Your task to perform on an android device: turn off data saver in the chrome app Image 0: 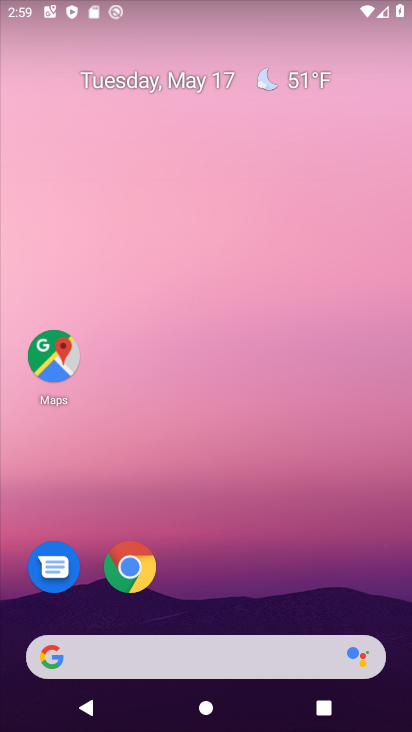
Step 0: drag from (168, 627) to (195, 195)
Your task to perform on an android device: turn off data saver in the chrome app Image 1: 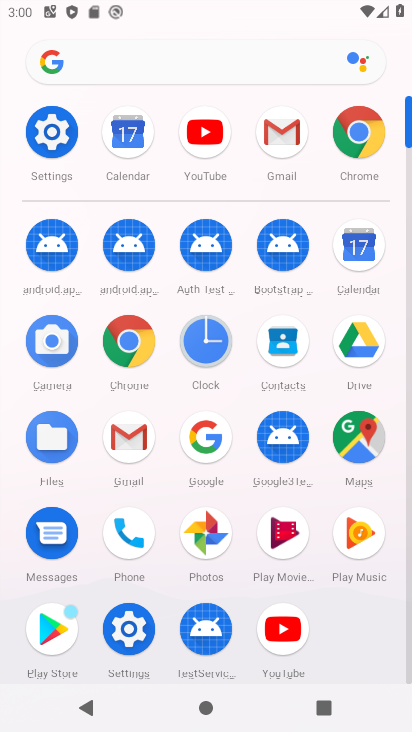
Step 1: click (336, 150)
Your task to perform on an android device: turn off data saver in the chrome app Image 2: 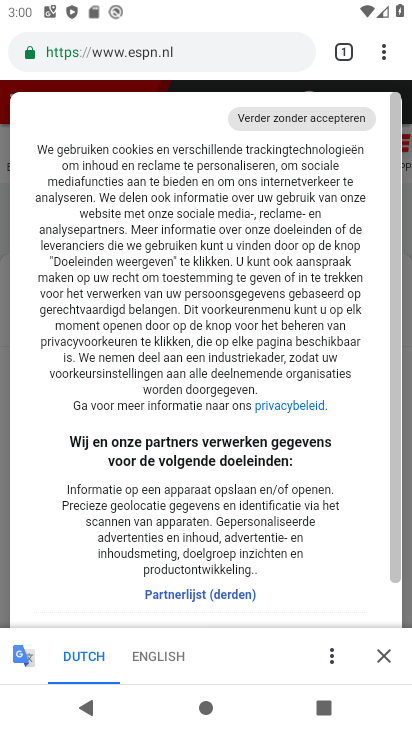
Step 2: click (388, 49)
Your task to perform on an android device: turn off data saver in the chrome app Image 3: 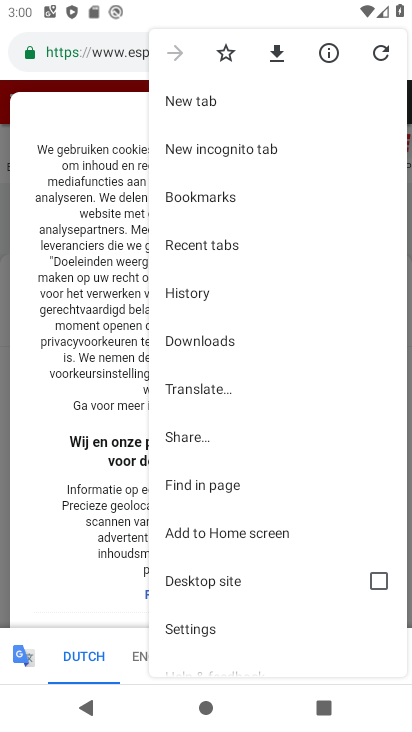
Step 3: click (211, 625)
Your task to perform on an android device: turn off data saver in the chrome app Image 4: 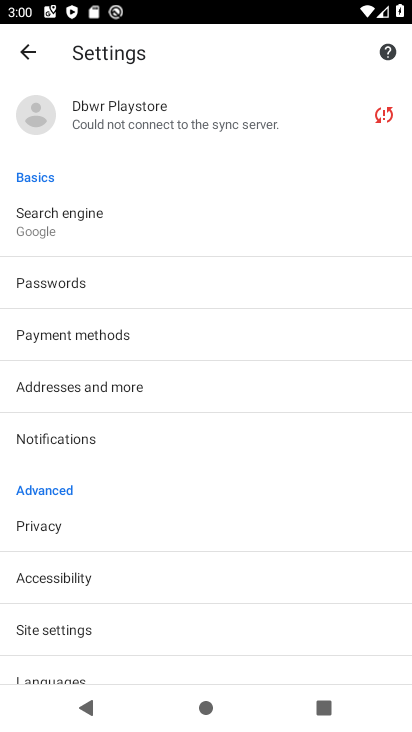
Step 4: drag from (71, 660) to (89, 271)
Your task to perform on an android device: turn off data saver in the chrome app Image 5: 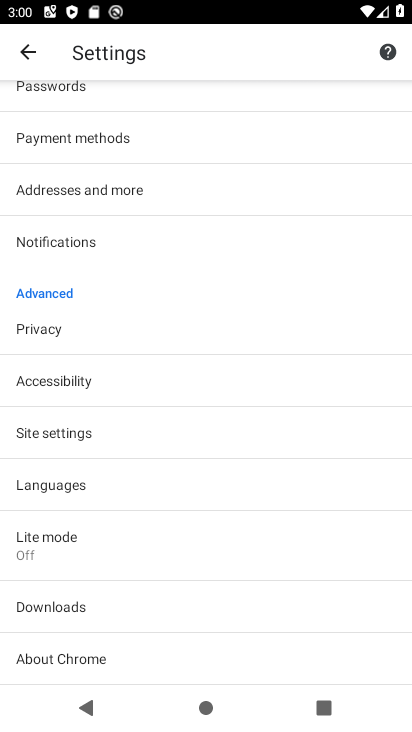
Step 5: click (44, 545)
Your task to perform on an android device: turn off data saver in the chrome app Image 6: 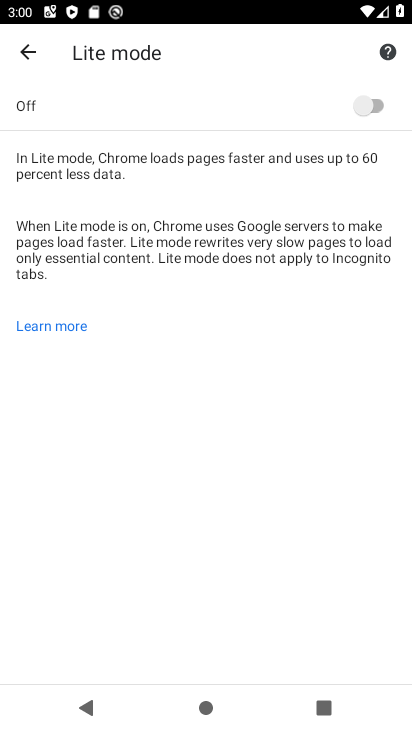
Step 6: task complete